Your task to perform on an android device: Open Google Chrome and open the bookmarks view Image 0: 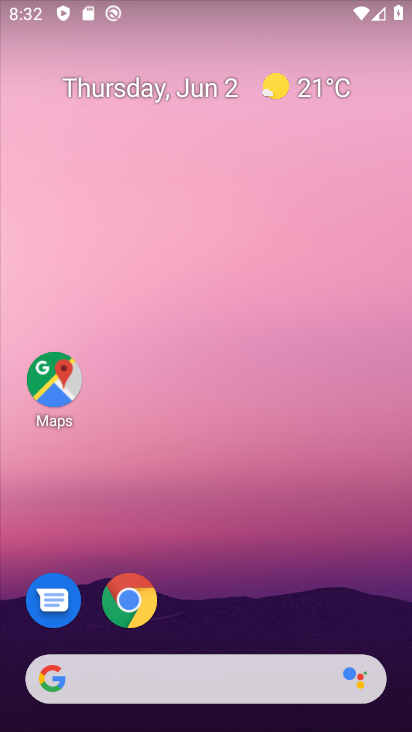
Step 0: click (144, 604)
Your task to perform on an android device: Open Google Chrome and open the bookmarks view Image 1: 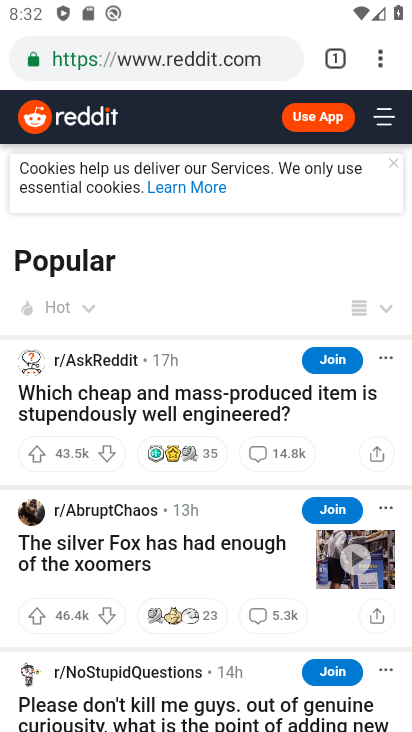
Step 1: task complete